Your task to perform on an android device: Open settings on Google Maps Image 0: 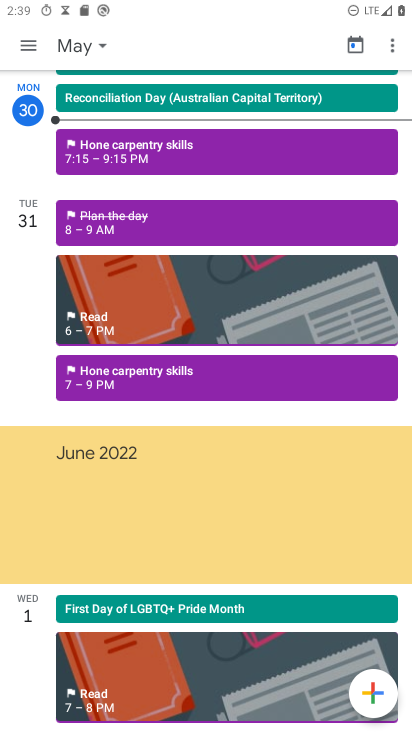
Step 0: press home button
Your task to perform on an android device: Open settings on Google Maps Image 1: 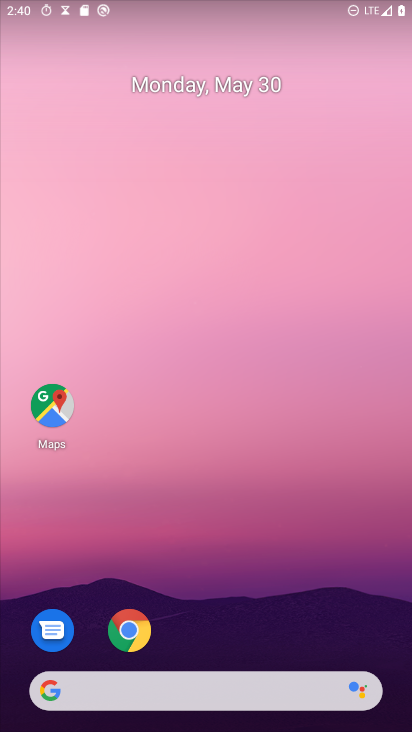
Step 1: drag from (241, 709) to (304, 206)
Your task to perform on an android device: Open settings on Google Maps Image 2: 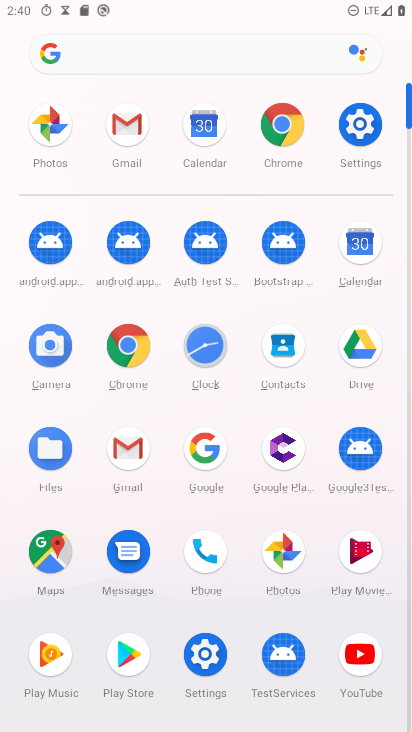
Step 2: click (46, 54)
Your task to perform on an android device: Open settings on Google Maps Image 3: 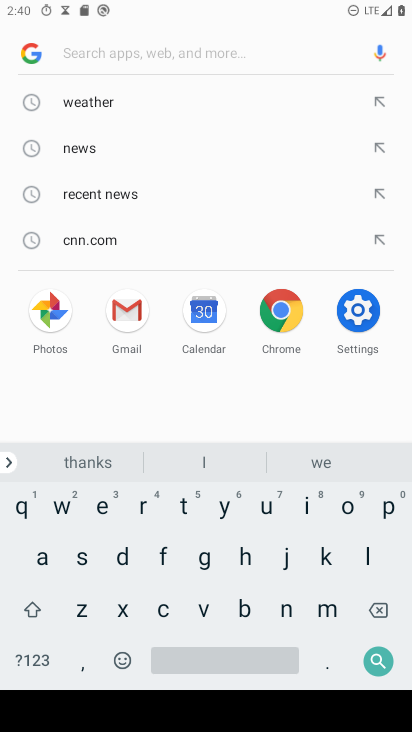
Step 3: click (39, 46)
Your task to perform on an android device: Open settings on Google Maps Image 4: 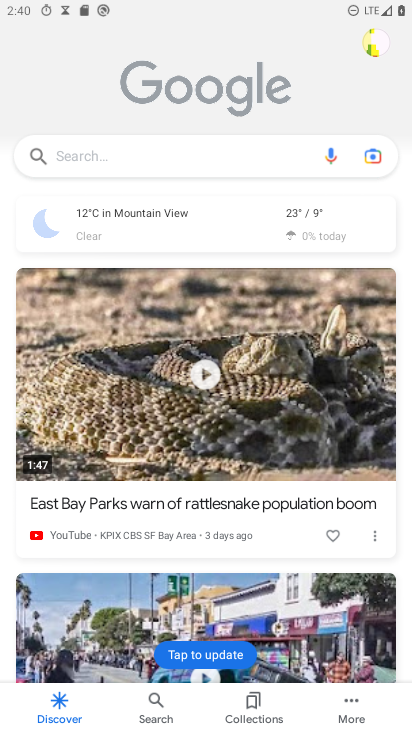
Step 4: task complete